Your task to perform on an android device: Go to eBay Image 0: 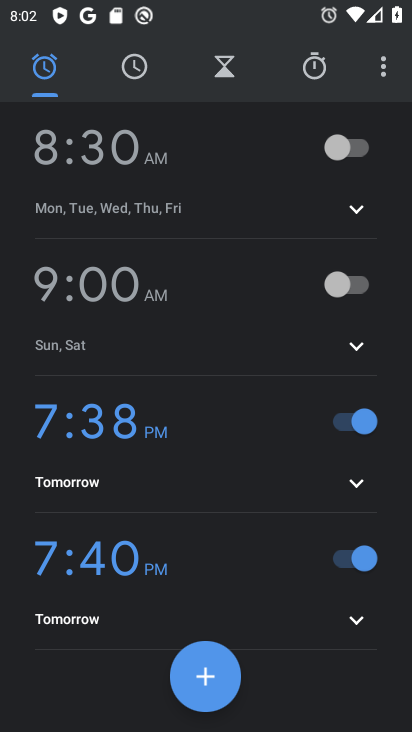
Step 0: press home button
Your task to perform on an android device: Go to eBay Image 1: 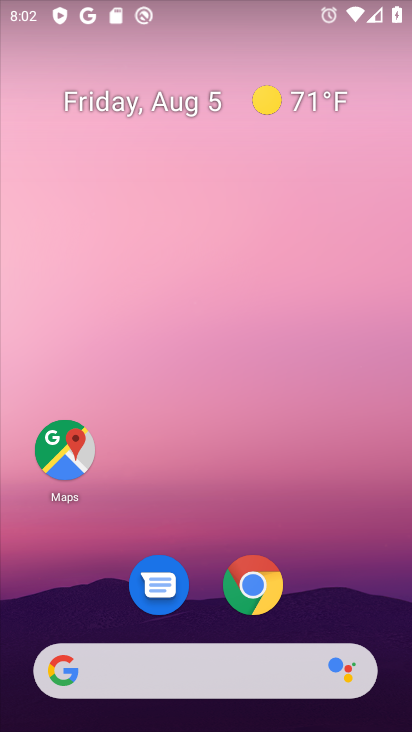
Step 1: click (216, 679)
Your task to perform on an android device: Go to eBay Image 2: 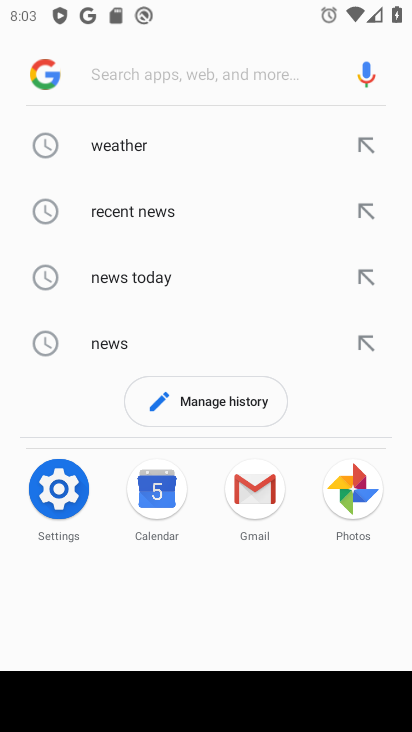
Step 2: type "ebay"
Your task to perform on an android device: Go to eBay Image 3: 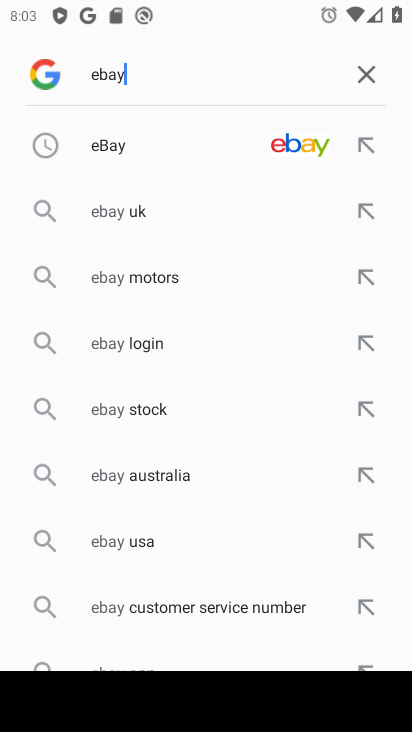
Step 3: click (214, 142)
Your task to perform on an android device: Go to eBay Image 4: 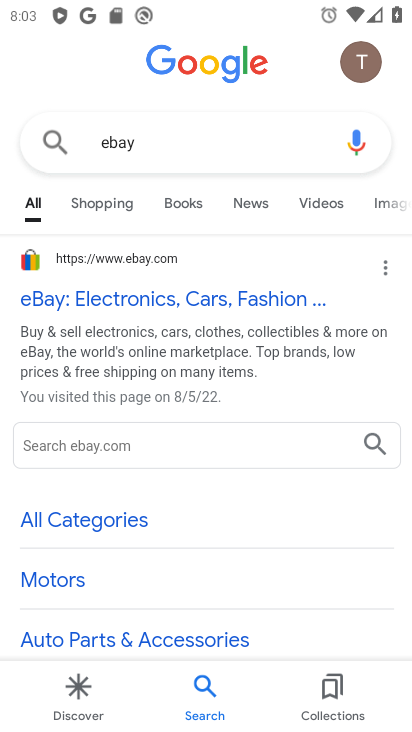
Step 4: click (52, 295)
Your task to perform on an android device: Go to eBay Image 5: 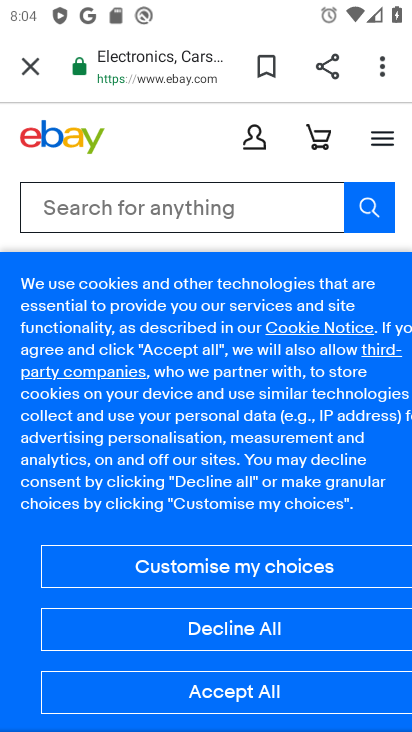
Step 5: click (369, 690)
Your task to perform on an android device: Go to eBay Image 6: 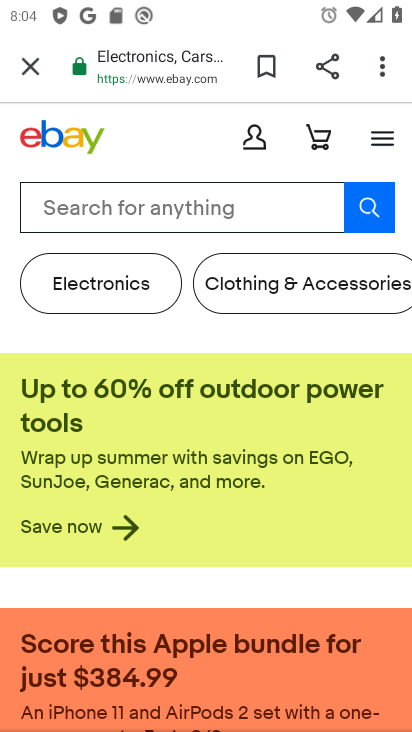
Step 6: task complete